Your task to perform on an android device: Go to wifi settings Image 0: 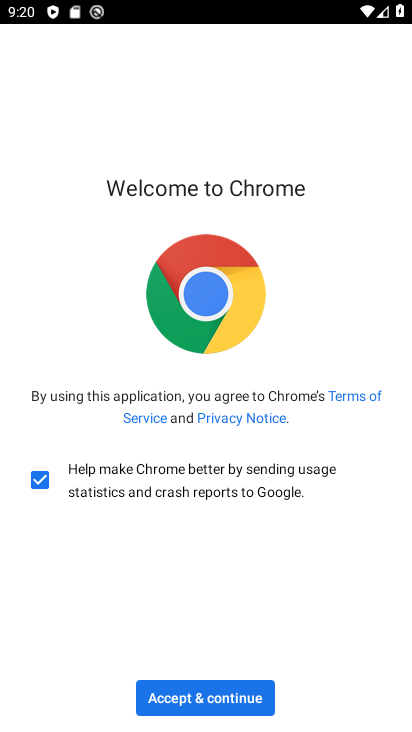
Step 0: press home button
Your task to perform on an android device: Go to wifi settings Image 1: 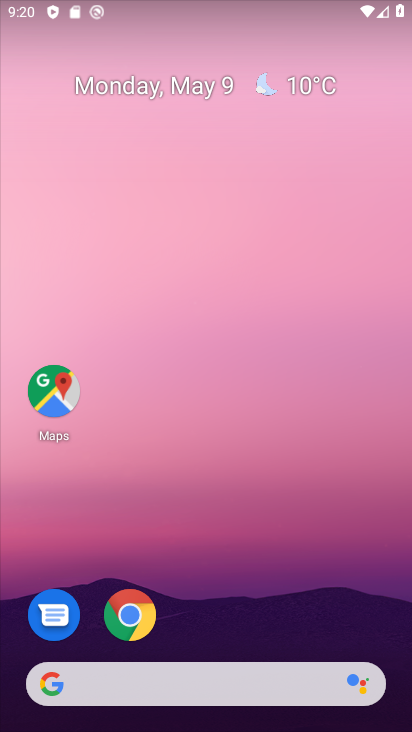
Step 1: drag from (237, 204) to (231, 116)
Your task to perform on an android device: Go to wifi settings Image 2: 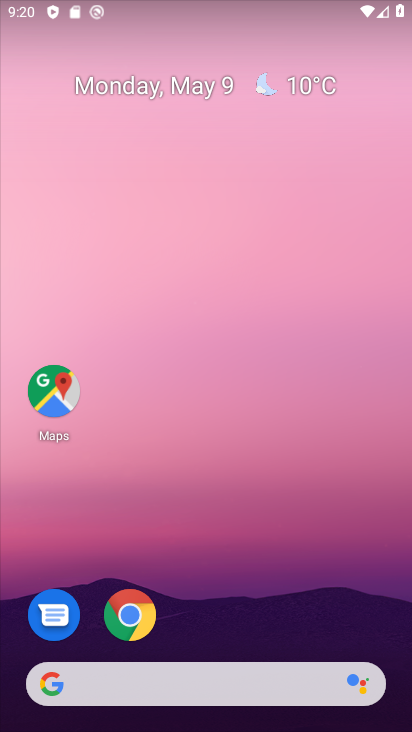
Step 2: drag from (210, 451) to (263, 84)
Your task to perform on an android device: Go to wifi settings Image 3: 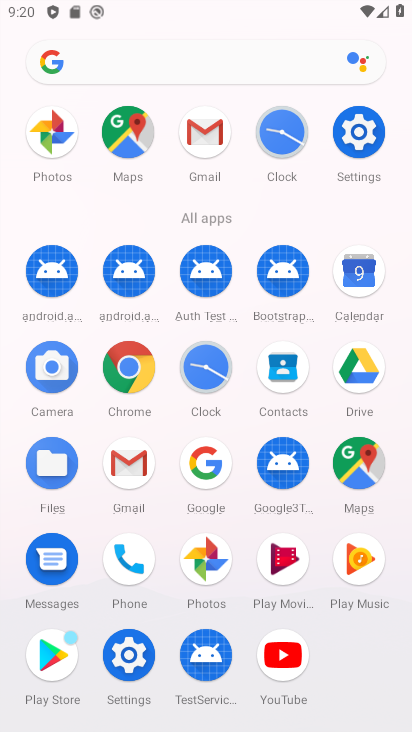
Step 3: click (335, 123)
Your task to perform on an android device: Go to wifi settings Image 4: 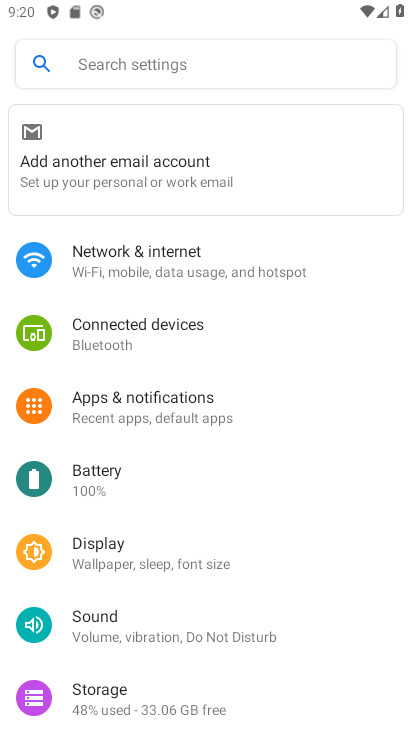
Step 4: click (224, 267)
Your task to perform on an android device: Go to wifi settings Image 5: 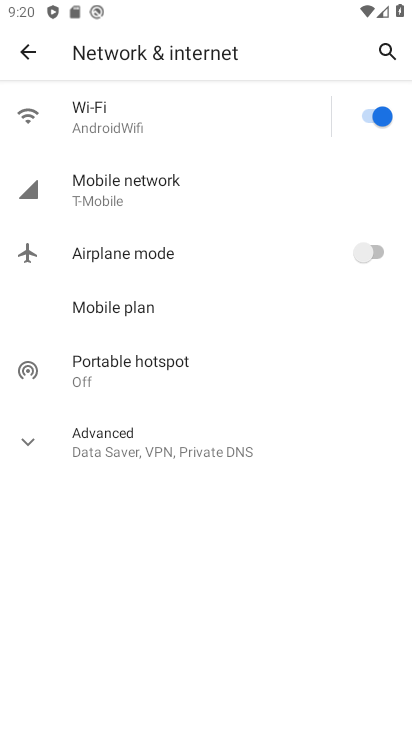
Step 5: click (194, 108)
Your task to perform on an android device: Go to wifi settings Image 6: 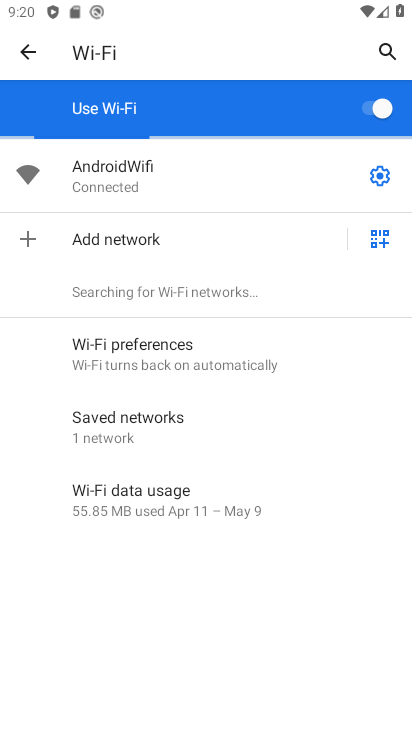
Step 6: task complete